Your task to perform on an android device: turn on showing notifications on the lock screen Image 0: 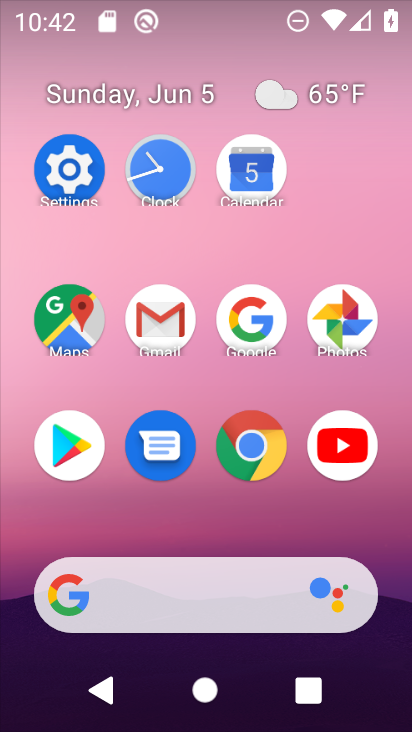
Step 0: click (54, 177)
Your task to perform on an android device: turn on showing notifications on the lock screen Image 1: 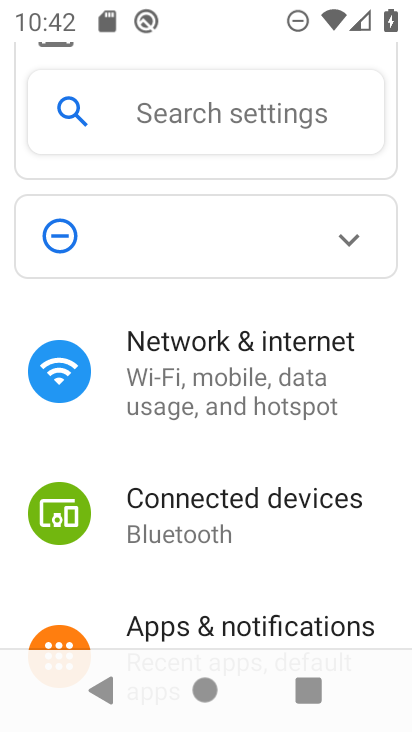
Step 1: click (250, 632)
Your task to perform on an android device: turn on showing notifications on the lock screen Image 2: 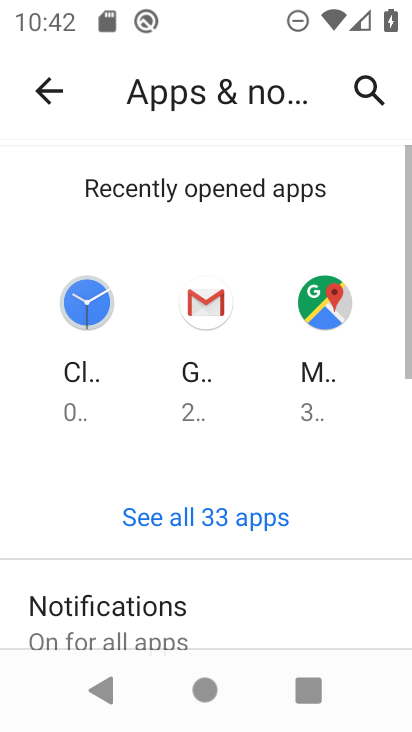
Step 2: drag from (242, 622) to (274, 326)
Your task to perform on an android device: turn on showing notifications on the lock screen Image 3: 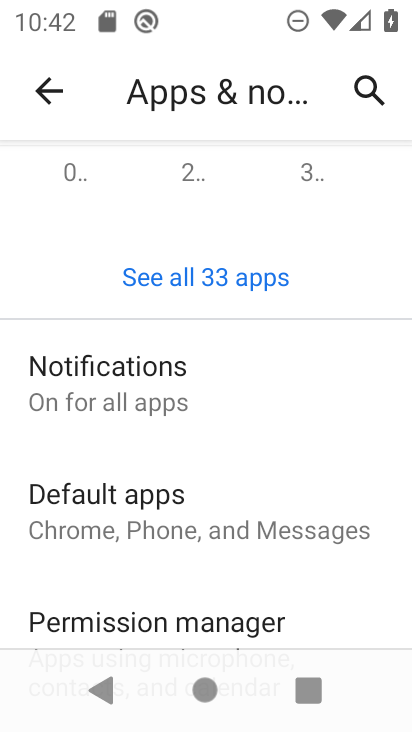
Step 3: drag from (340, 583) to (309, 345)
Your task to perform on an android device: turn on showing notifications on the lock screen Image 4: 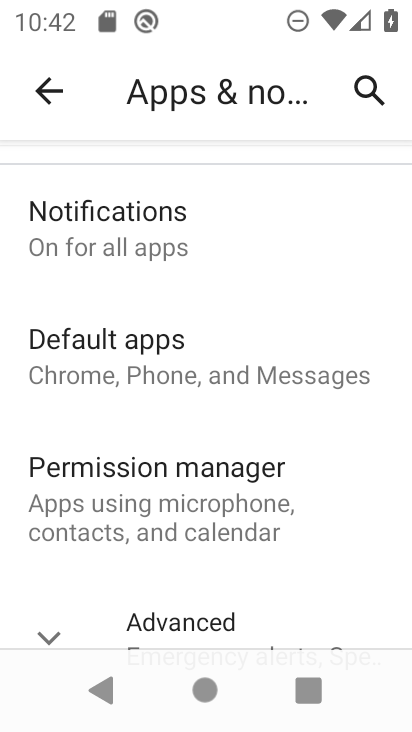
Step 4: click (268, 636)
Your task to perform on an android device: turn on showing notifications on the lock screen Image 5: 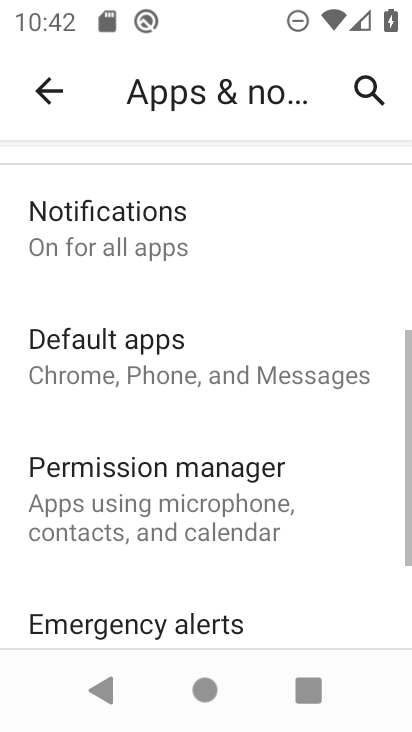
Step 5: drag from (249, 603) to (278, 357)
Your task to perform on an android device: turn on showing notifications on the lock screen Image 6: 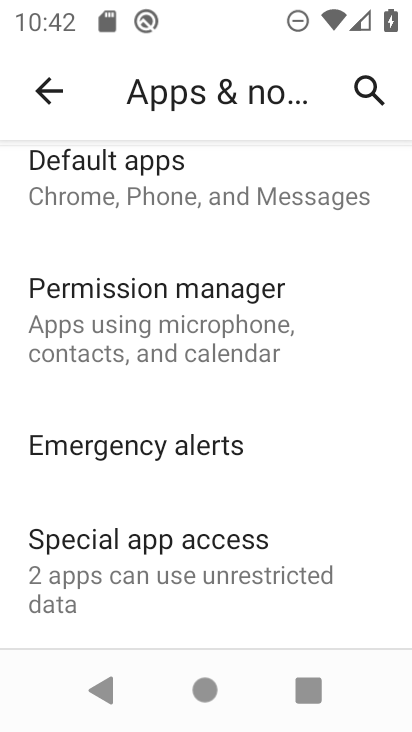
Step 6: drag from (304, 479) to (300, 264)
Your task to perform on an android device: turn on showing notifications on the lock screen Image 7: 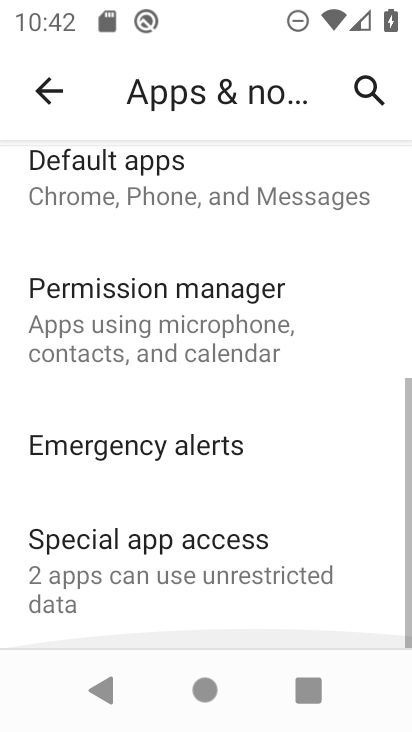
Step 7: drag from (222, 262) to (306, 693)
Your task to perform on an android device: turn on showing notifications on the lock screen Image 8: 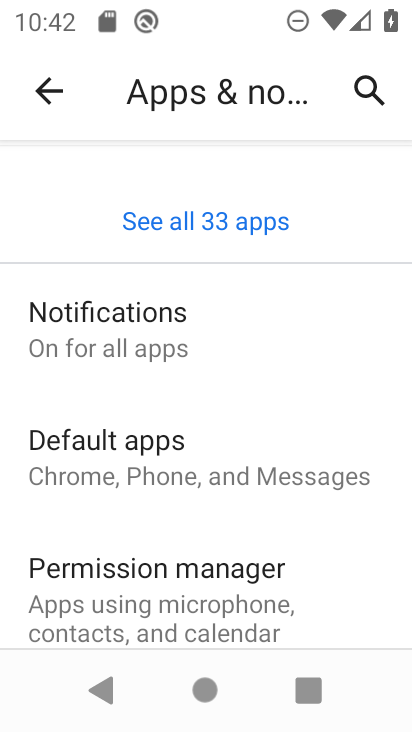
Step 8: click (202, 334)
Your task to perform on an android device: turn on showing notifications on the lock screen Image 9: 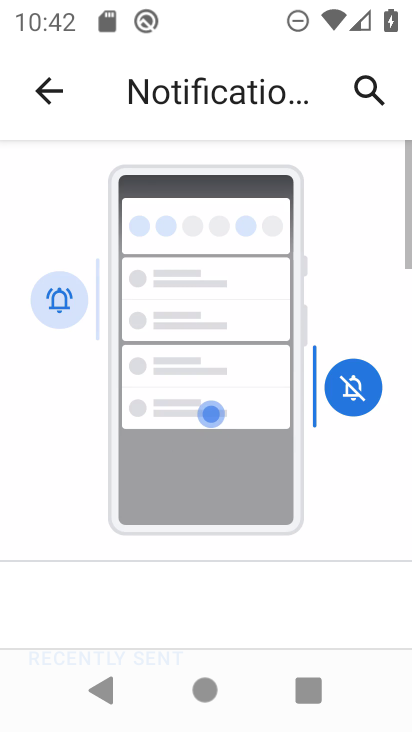
Step 9: drag from (286, 565) to (254, 275)
Your task to perform on an android device: turn on showing notifications on the lock screen Image 10: 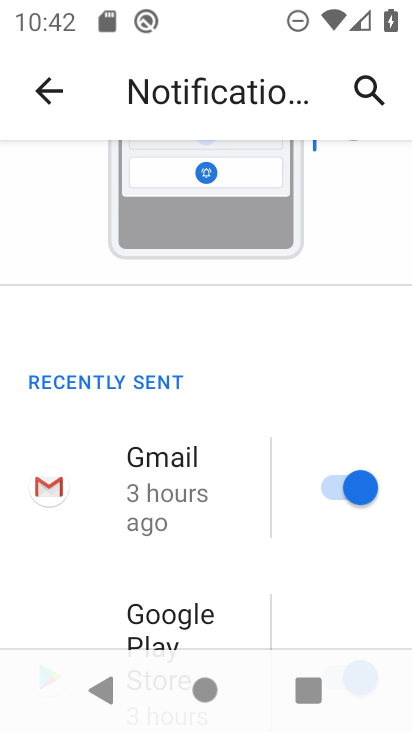
Step 10: drag from (257, 553) to (268, 284)
Your task to perform on an android device: turn on showing notifications on the lock screen Image 11: 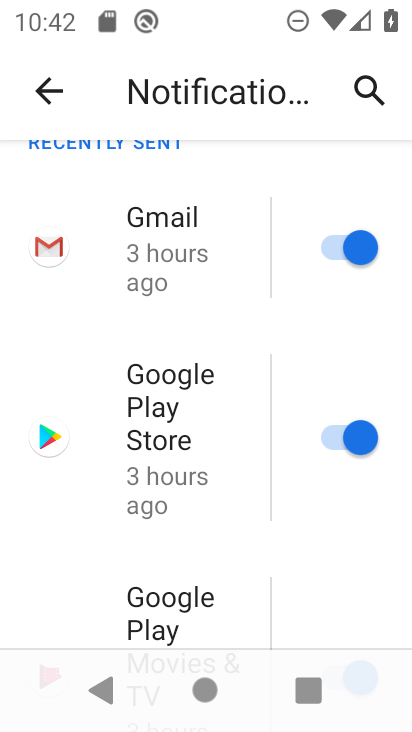
Step 11: drag from (275, 655) to (281, 270)
Your task to perform on an android device: turn on showing notifications on the lock screen Image 12: 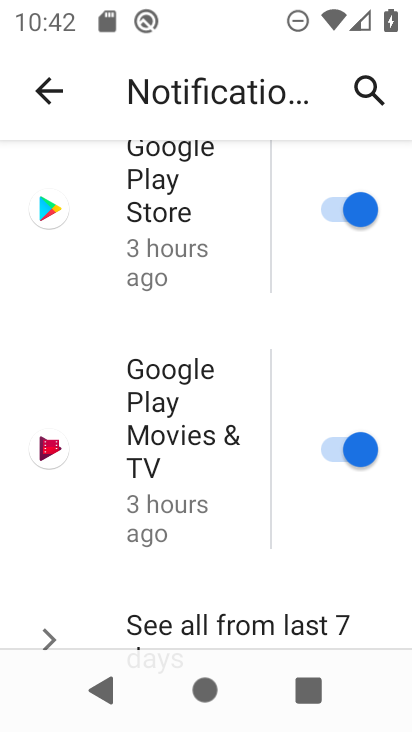
Step 12: drag from (251, 599) to (273, 285)
Your task to perform on an android device: turn on showing notifications on the lock screen Image 13: 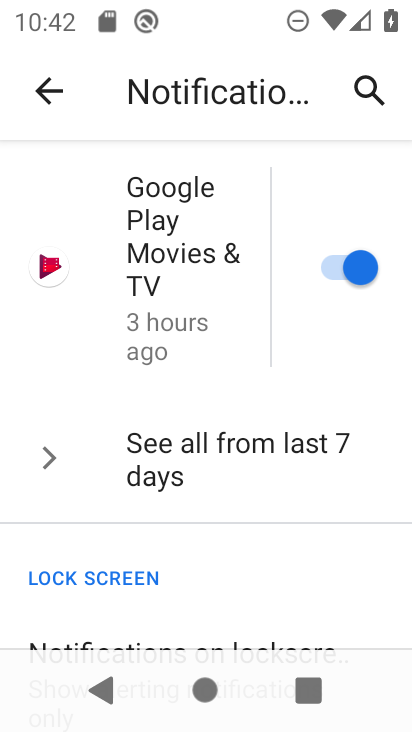
Step 13: drag from (263, 557) to (277, 274)
Your task to perform on an android device: turn on showing notifications on the lock screen Image 14: 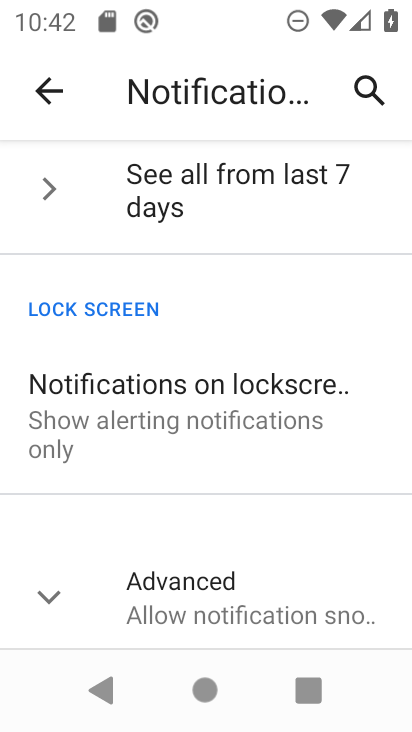
Step 14: click (237, 432)
Your task to perform on an android device: turn on showing notifications on the lock screen Image 15: 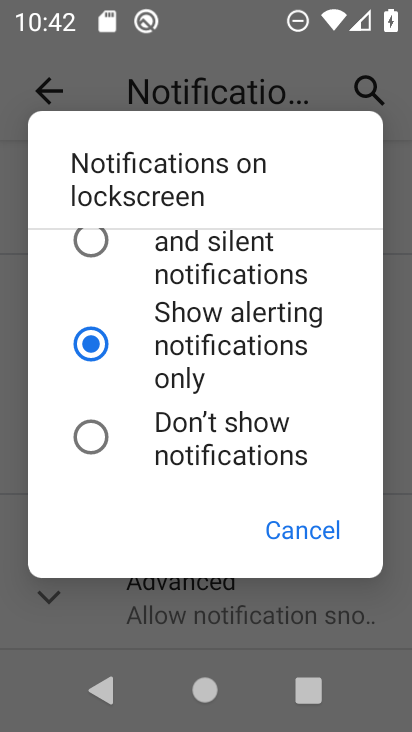
Step 15: click (205, 450)
Your task to perform on an android device: turn on showing notifications on the lock screen Image 16: 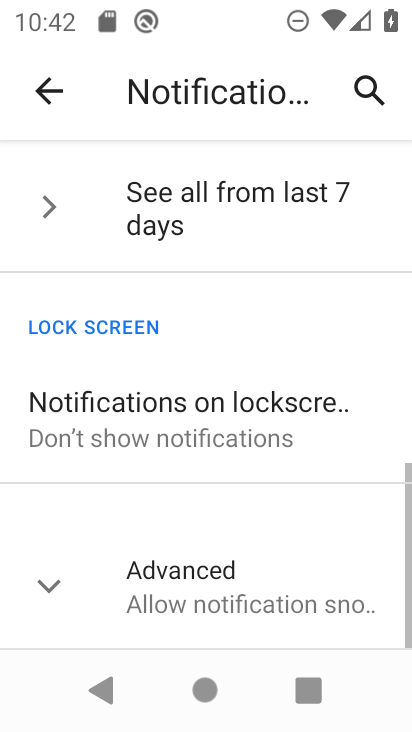
Step 16: task complete